Your task to perform on an android device: open app "Flipkart Online Shopping App" (install if not already installed) and go to login screen Image 0: 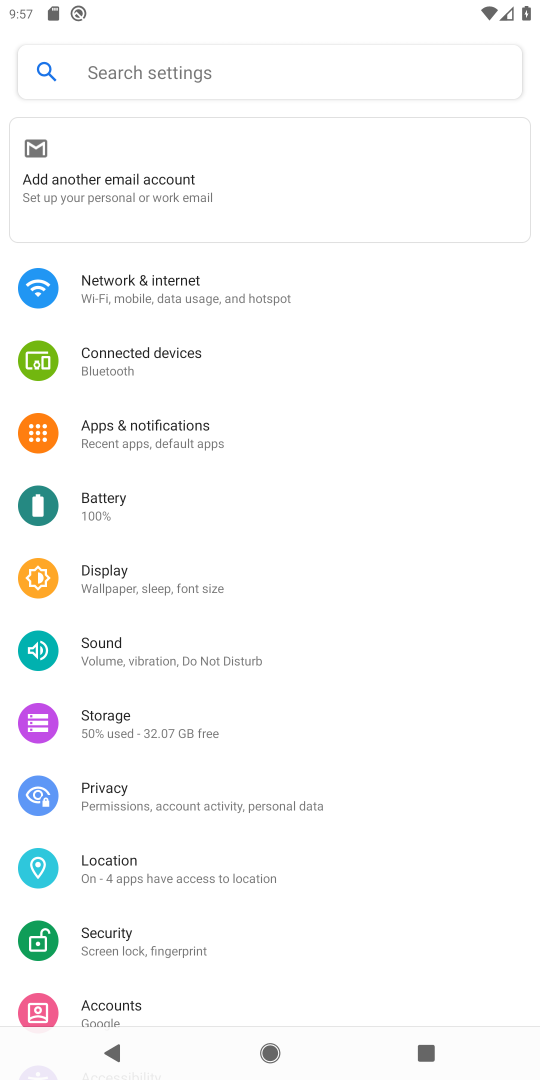
Step 0: press home button
Your task to perform on an android device: open app "Flipkart Online Shopping App" (install if not already installed) and go to login screen Image 1: 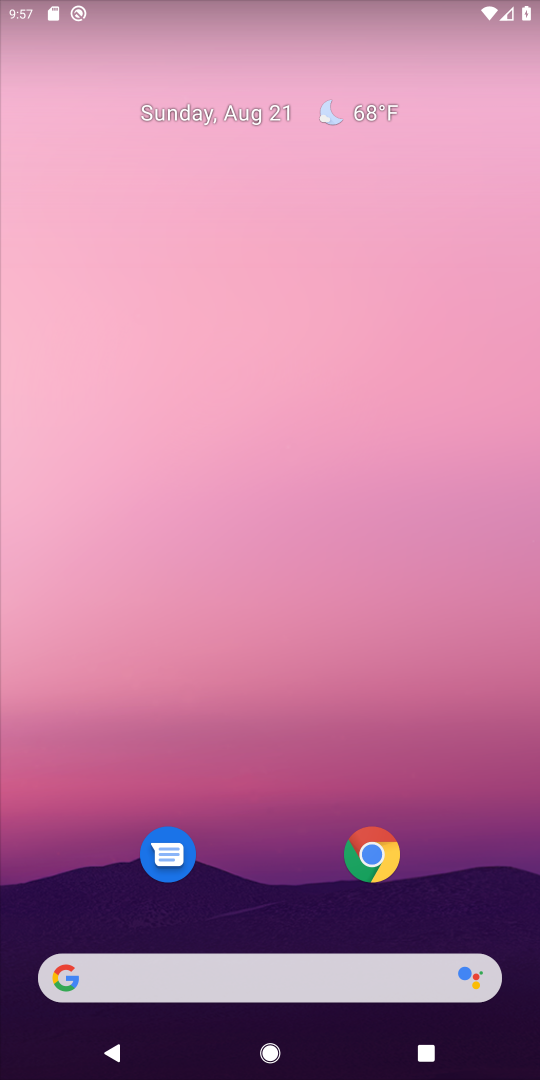
Step 1: drag from (322, 927) to (187, 5)
Your task to perform on an android device: open app "Flipkart Online Shopping App" (install if not already installed) and go to login screen Image 2: 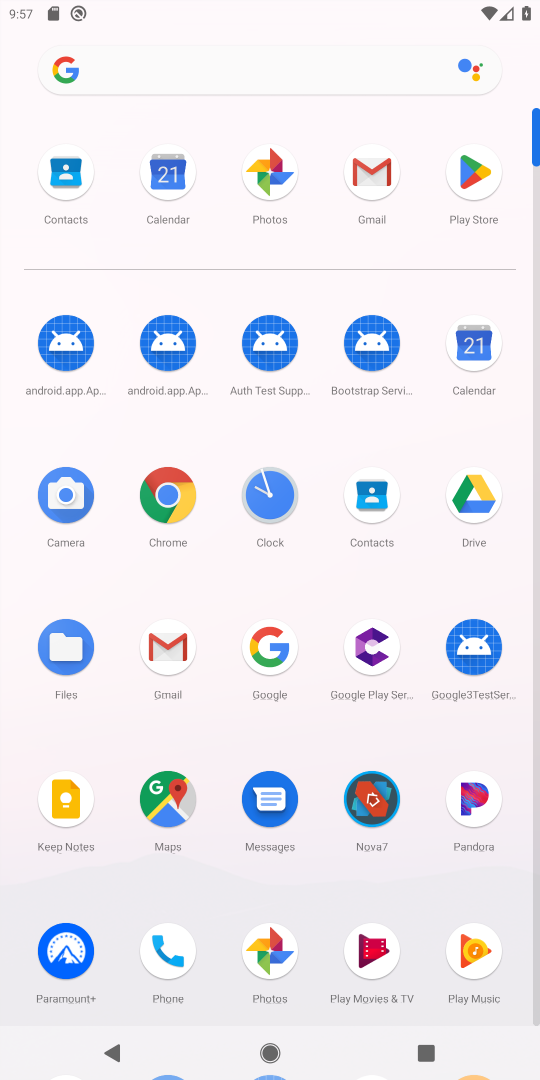
Step 2: click (464, 163)
Your task to perform on an android device: open app "Flipkart Online Shopping App" (install if not already installed) and go to login screen Image 3: 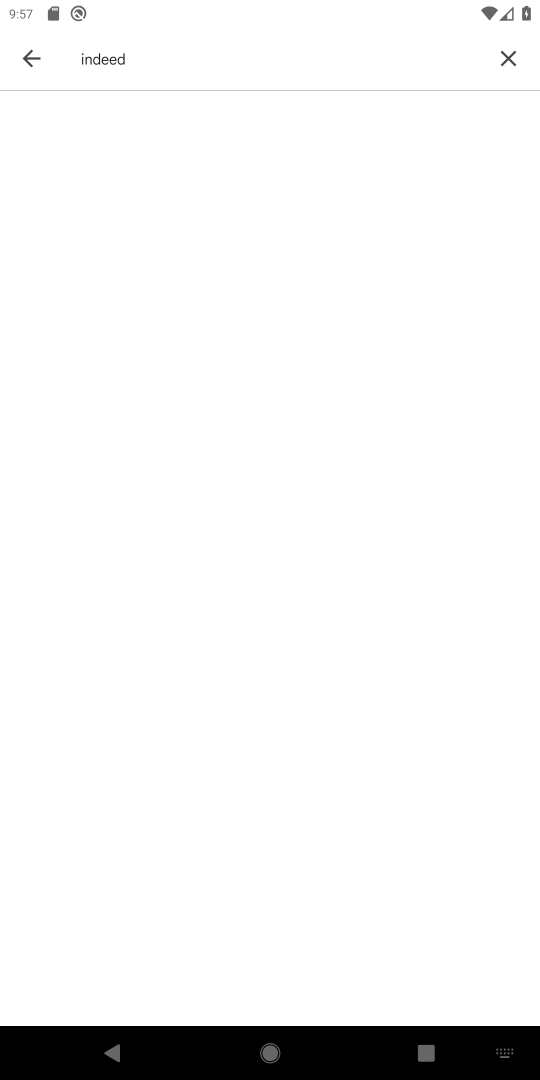
Step 3: click (518, 61)
Your task to perform on an android device: open app "Flipkart Online Shopping App" (install if not already installed) and go to login screen Image 4: 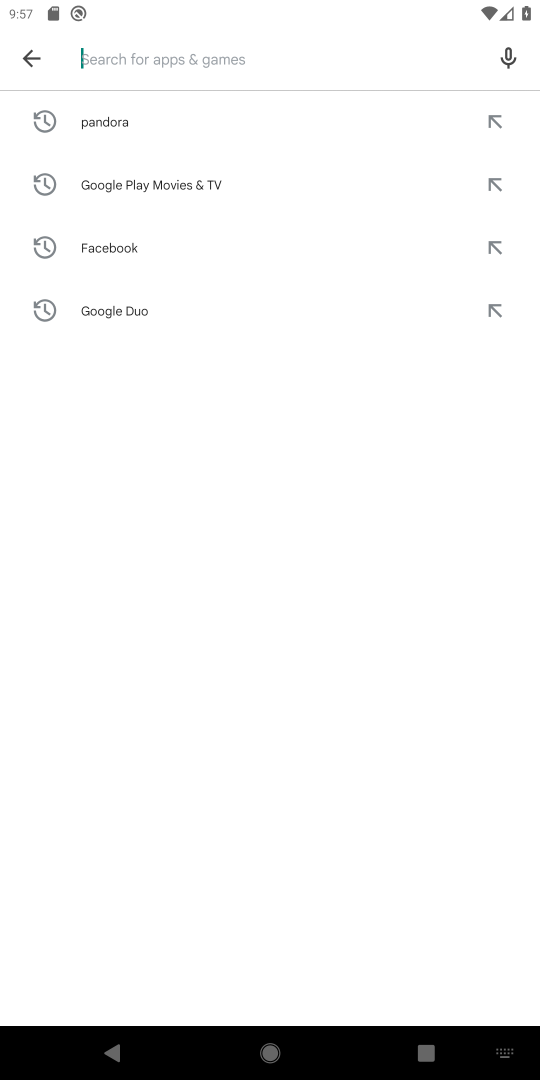
Step 4: type "flipkart"
Your task to perform on an android device: open app "Flipkart Online Shopping App" (install if not already installed) and go to login screen Image 5: 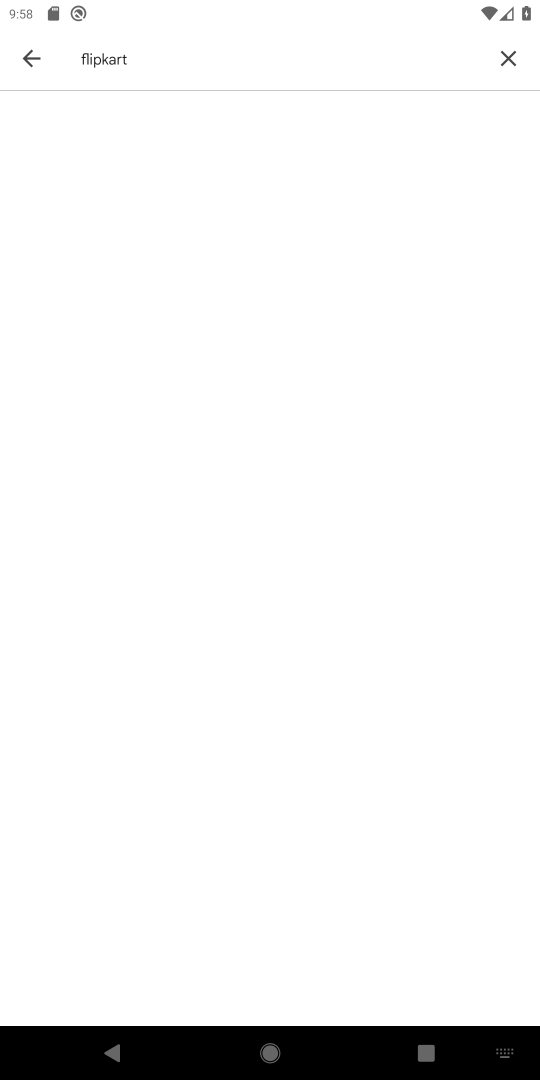
Step 5: task complete